Your task to perform on an android device: turn pop-ups off in chrome Image 0: 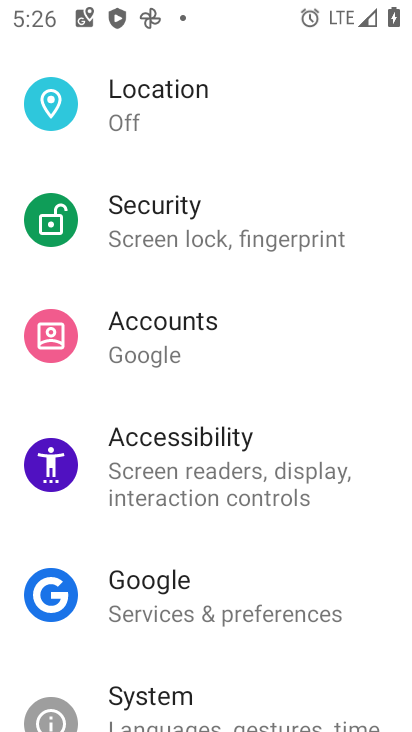
Step 0: press home button
Your task to perform on an android device: turn pop-ups off in chrome Image 1: 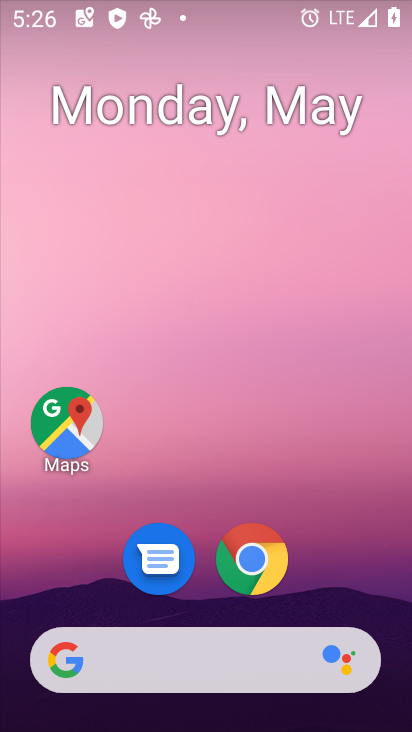
Step 1: drag from (253, 670) to (254, 3)
Your task to perform on an android device: turn pop-ups off in chrome Image 2: 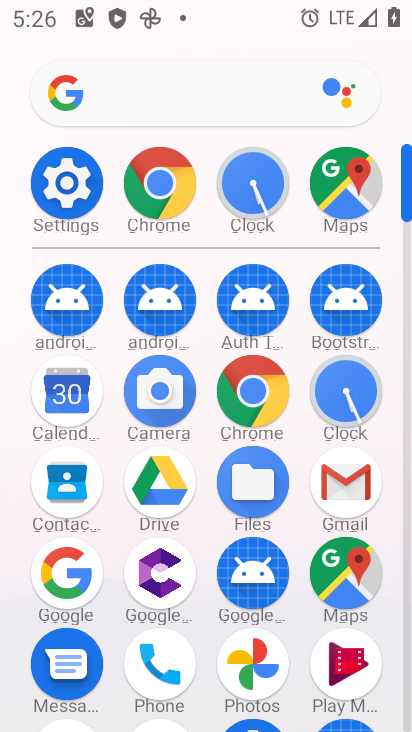
Step 2: click (247, 396)
Your task to perform on an android device: turn pop-ups off in chrome Image 3: 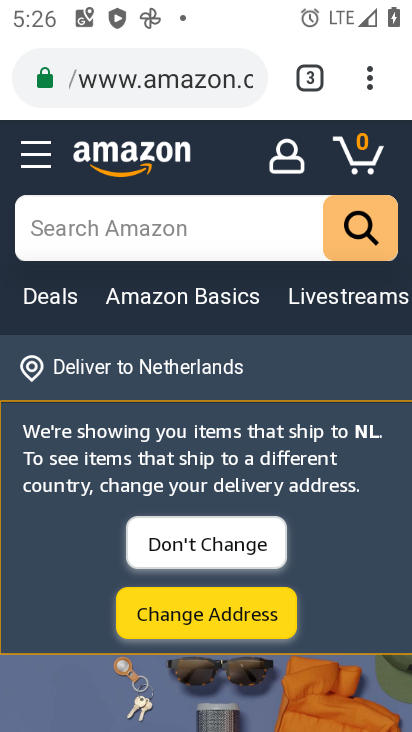
Step 3: drag from (373, 78) to (175, 621)
Your task to perform on an android device: turn pop-ups off in chrome Image 4: 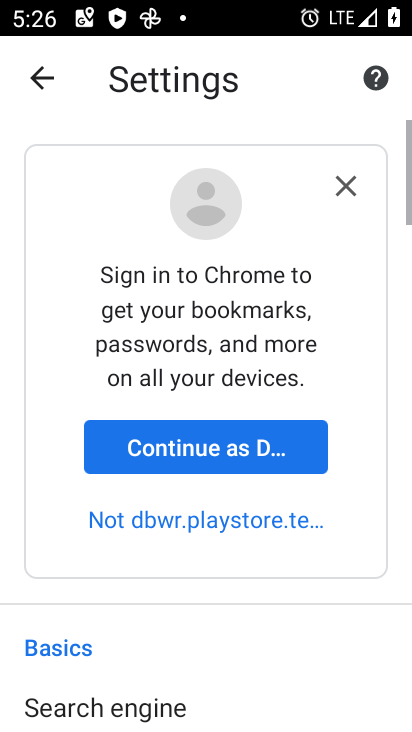
Step 4: drag from (285, 678) to (363, 56)
Your task to perform on an android device: turn pop-ups off in chrome Image 5: 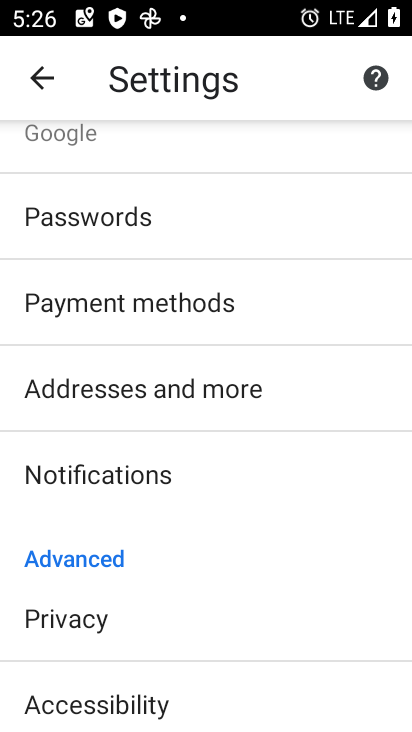
Step 5: drag from (313, 611) to (367, 171)
Your task to perform on an android device: turn pop-ups off in chrome Image 6: 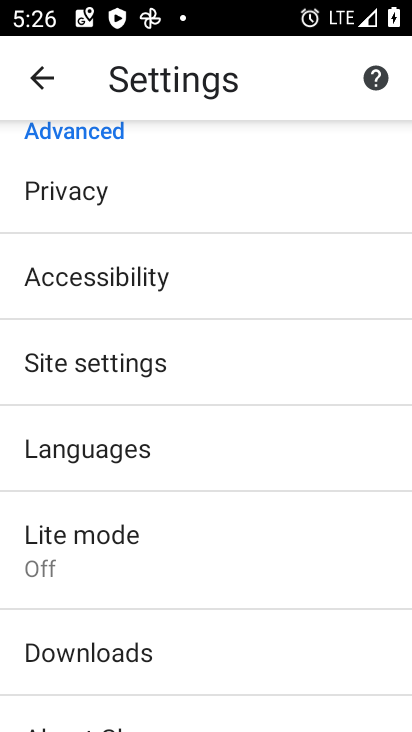
Step 6: click (173, 368)
Your task to perform on an android device: turn pop-ups off in chrome Image 7: 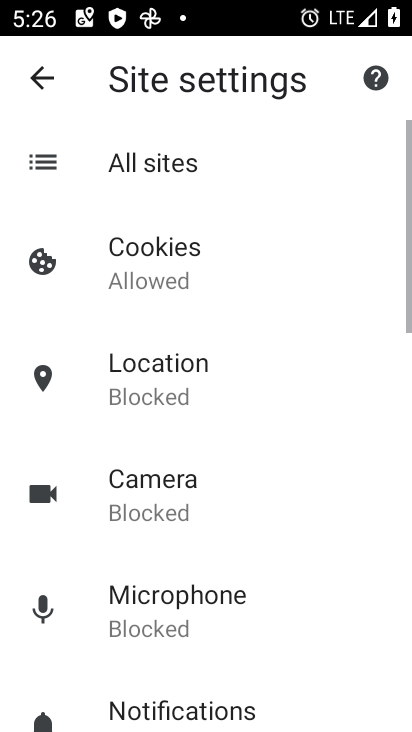
Step 7: drag from (269, 622) to (296, 78)
Your task to perform on an android device: turn pop-ups off in chrome Image 8: 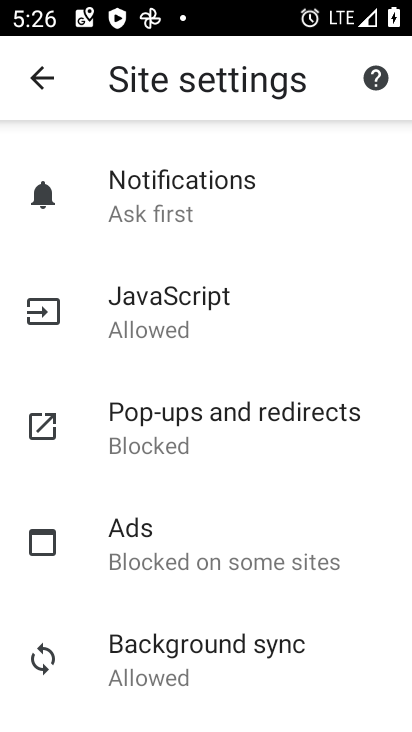
Step 8: click (233, 421)
Your task to perform on an android device: turn pop-ups off in chrome Image 9: 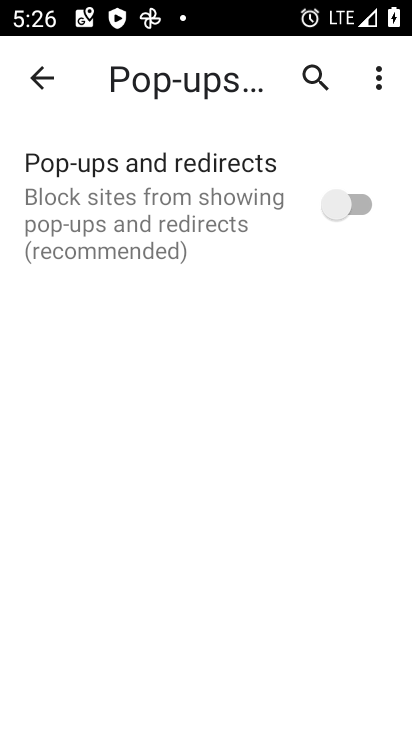
Step 9: task complete